Your task to perform on an android device: turn on airplane mode Image 0: 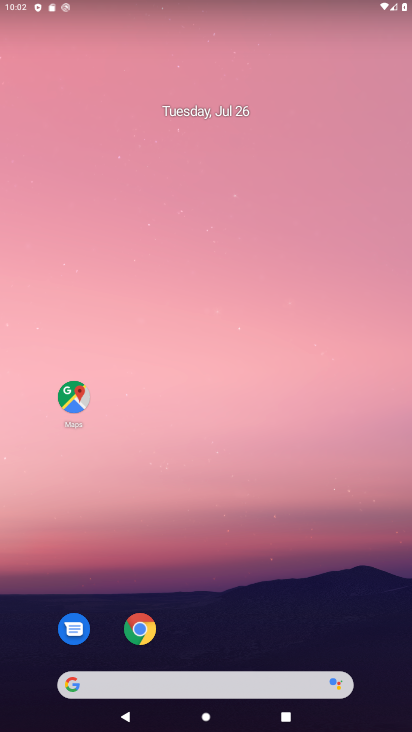
Step 0: drag from (329, 644) to (295, 141)
Your task to perform on an android device: turn on airplane mode Image 1: 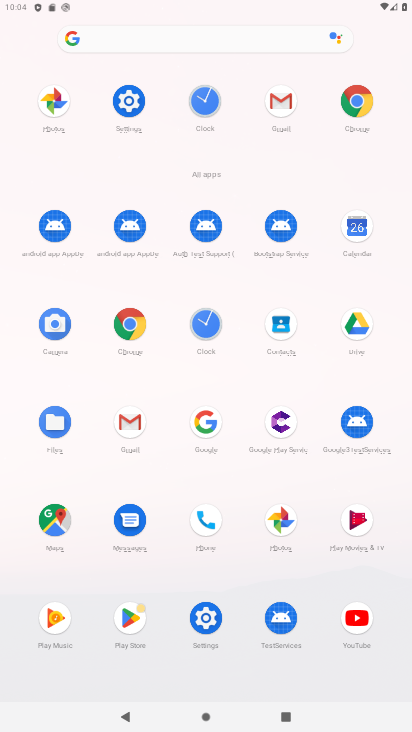
Step 1: click (209, 644)
Your task to perform on an android device: turn on airplane mode Image 2: 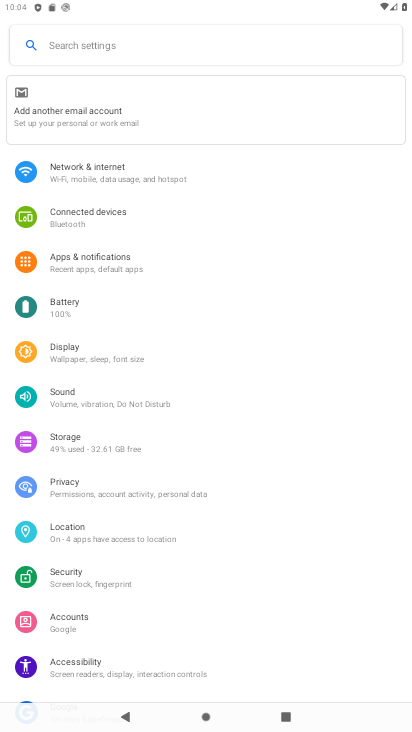
Step 2: click (110, 183)
Your task to perform on an android device: turn on airplane mode Image 3: 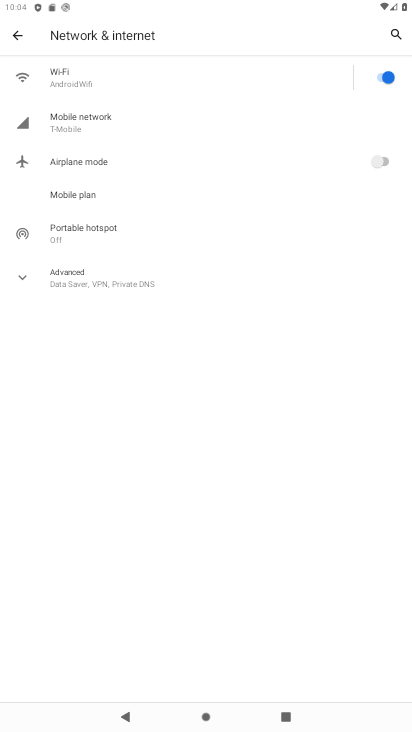
Step 3: task complete